Your task to perform on an android device: install app "Truecaller" Image 0: 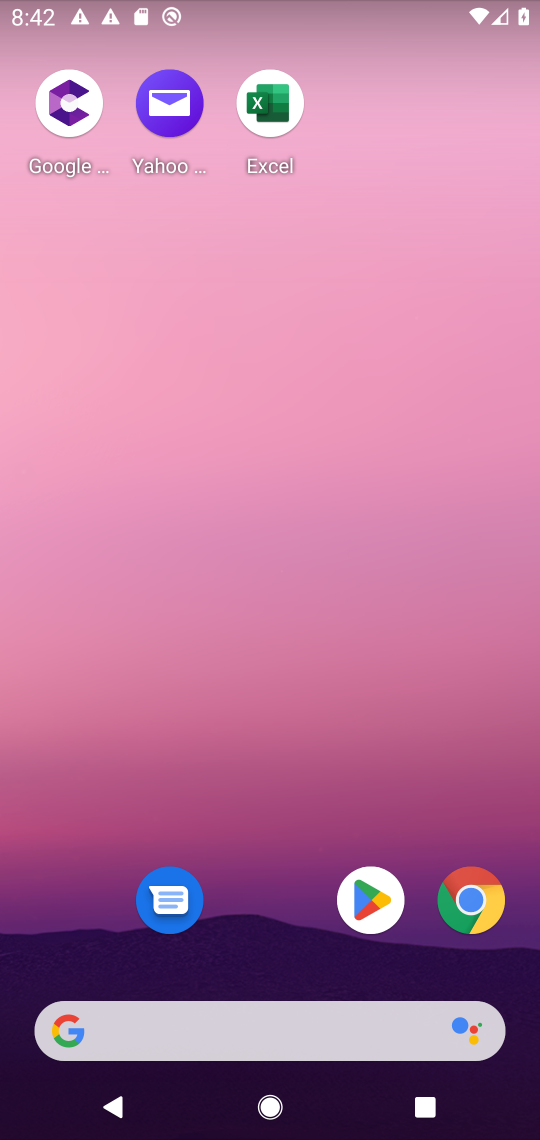
Step 0: drag from (372, 1054) to (389, 124)
Your task to perform on an android device: install app "Truecaller" Image 1: 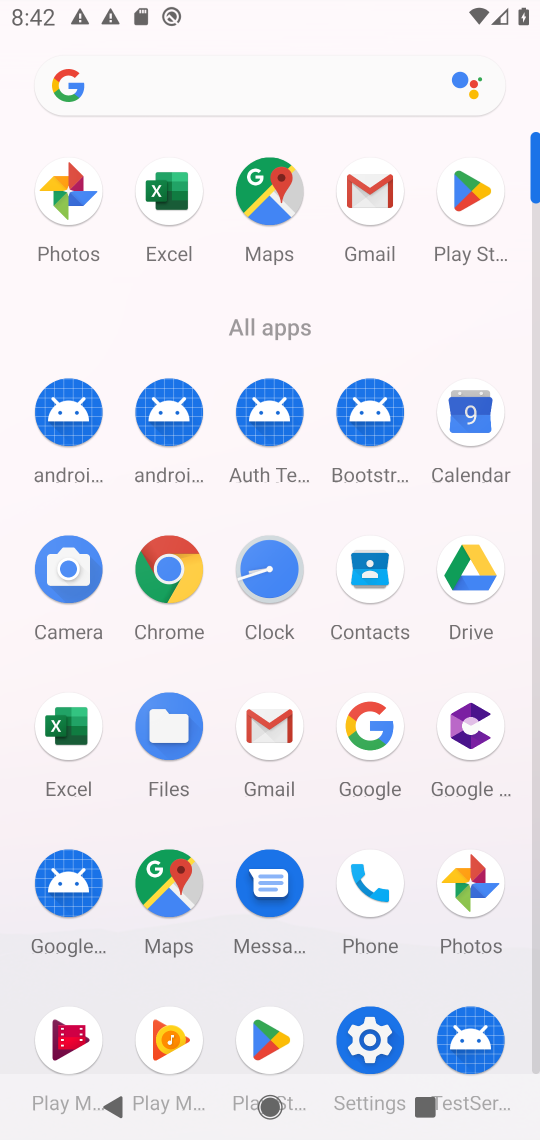
Step 1: click (263, 1012)
Your task to perform on an android device: install app "Truecaller" Image 2: 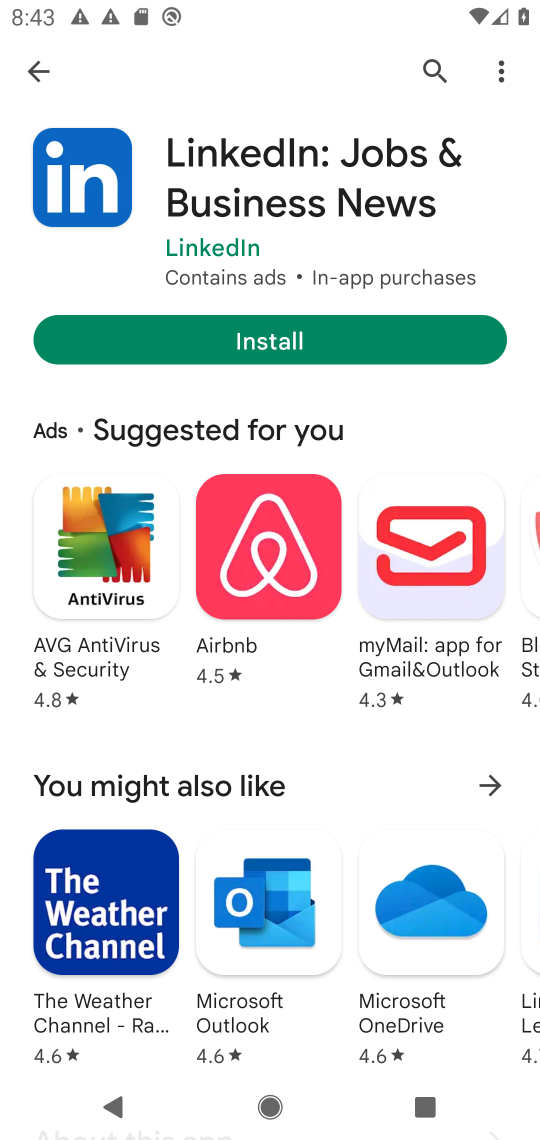
Step 2: click (301, 330)
Your task to perform on an android device: install app "Truecaller" Image 3: 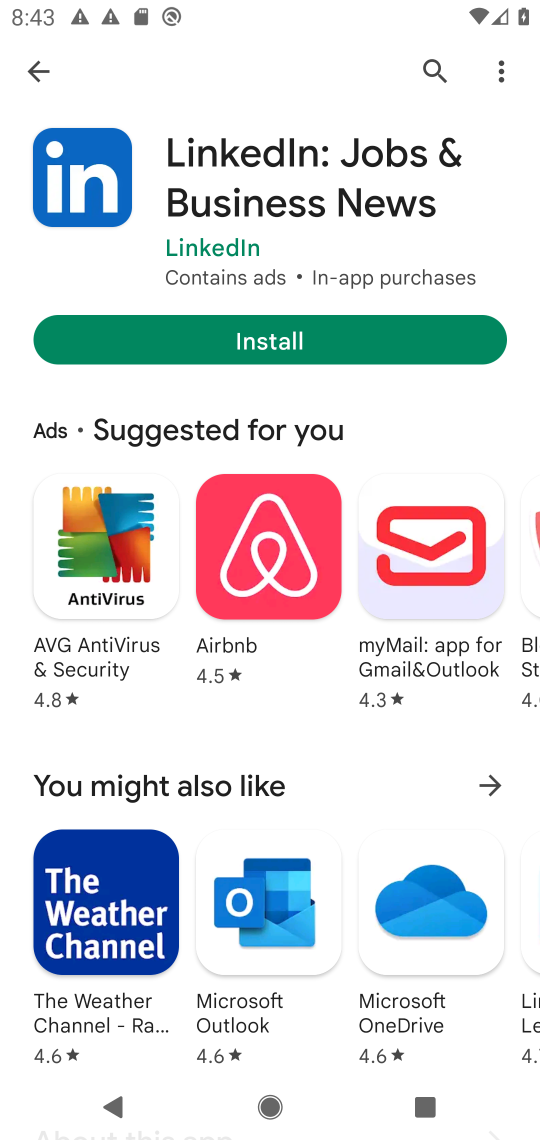
Step 3: click (273, 344)
Your task to perform on an android device: install app "Truecaller" Image 4: 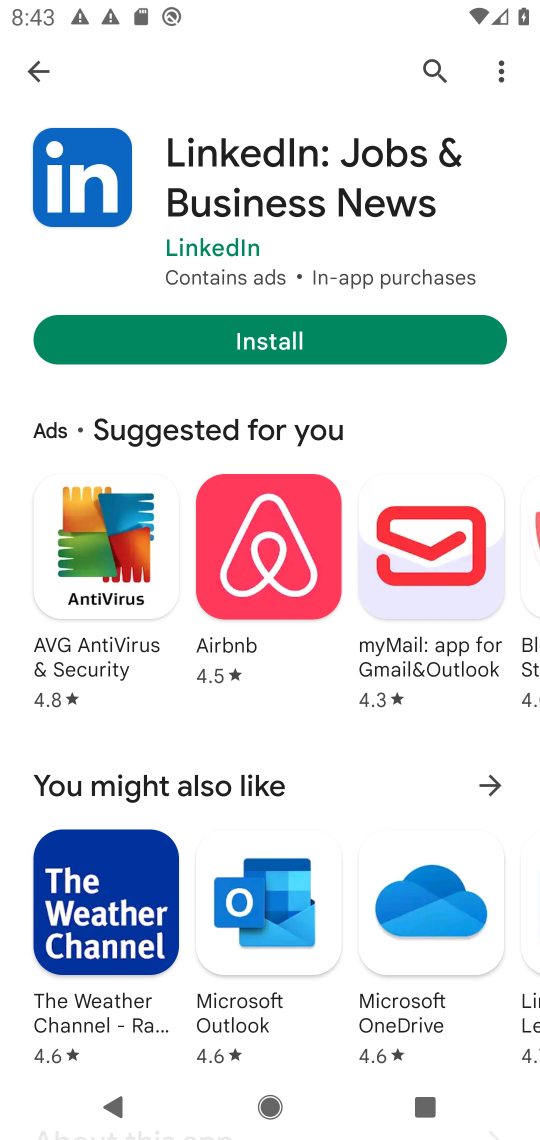
Step 4: click (259, 342)
Your task to perform on an android device: install app "Truecaller" Image 5: 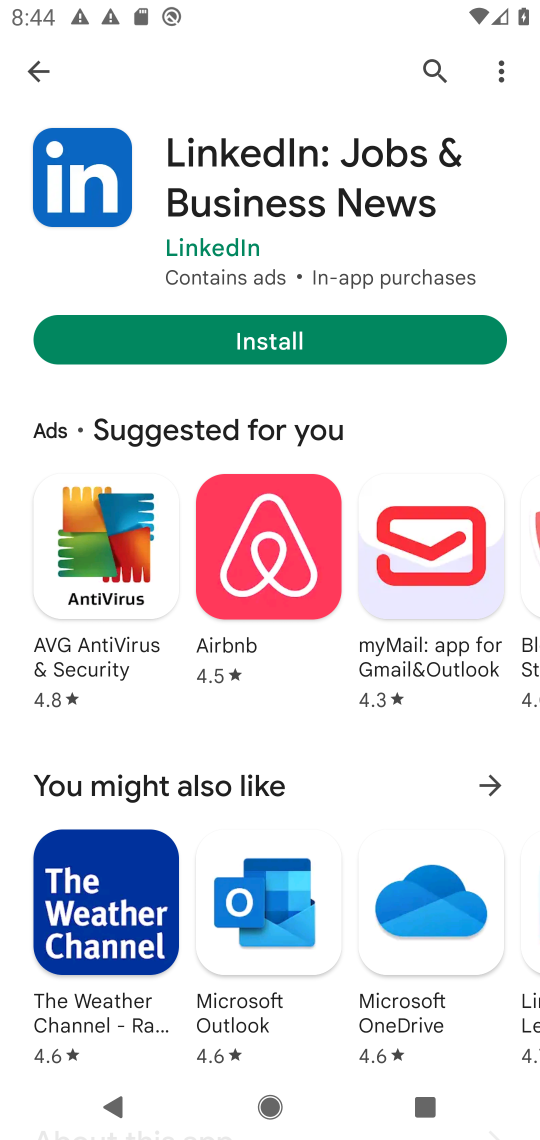
Step 5: click (251, 360)
Your task to perform on an android device: install app "Truecaller" Image 6: 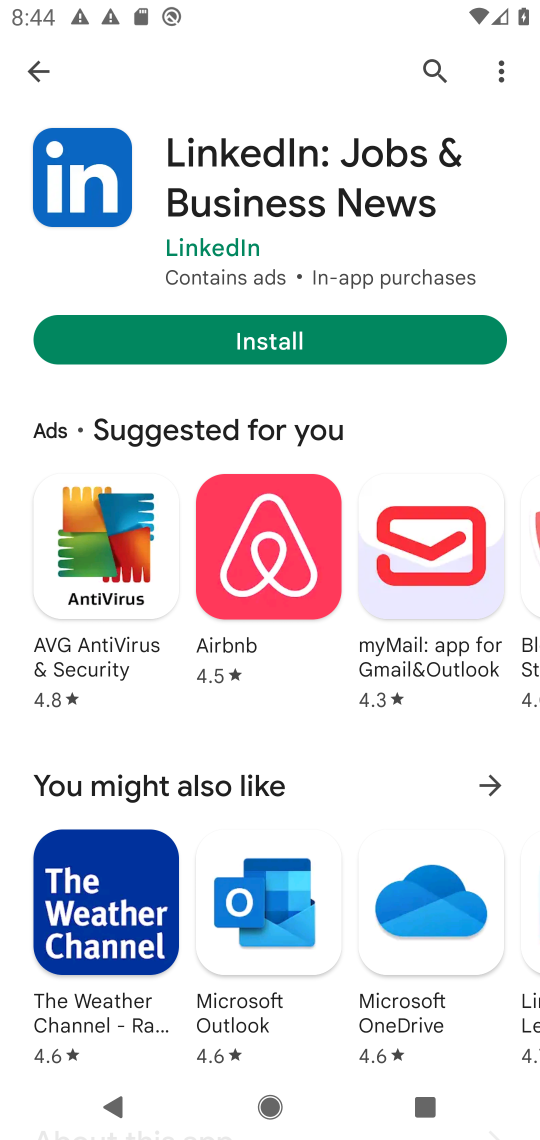
Step 6: click (284, 327)
Your task to perform on an android device: install app "Truecaller" Image 7: 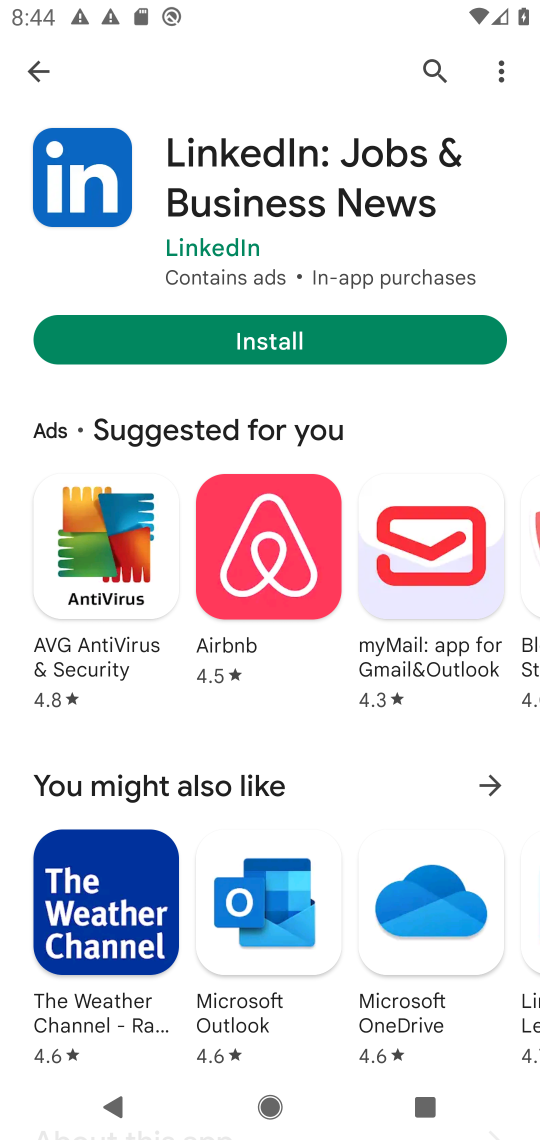
Step 7: task complete